Your task to perform on an android device: Search for a small bookcase on Ikea.com Image 0: 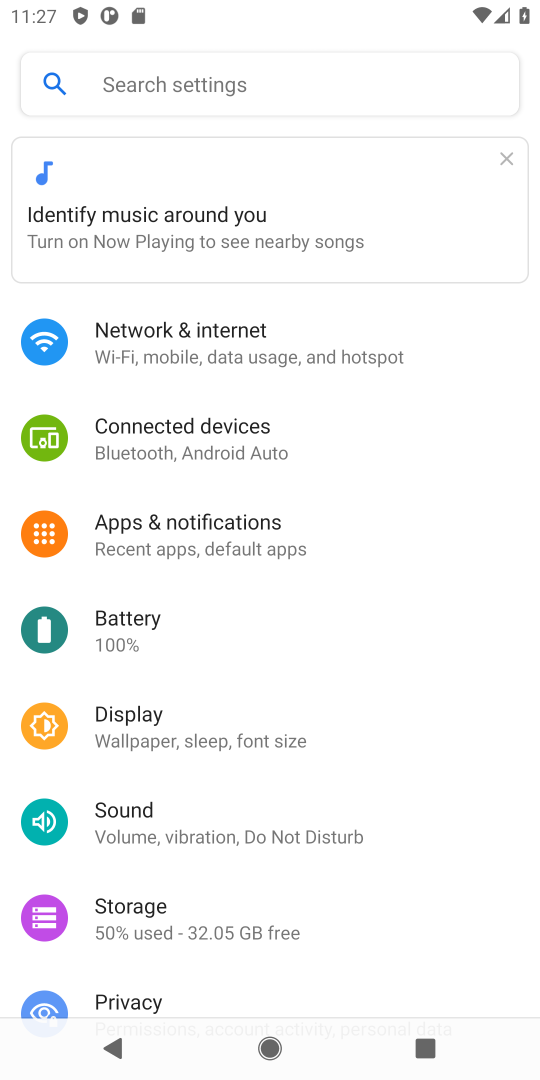
Step 0: press home button
Your task to perform on an android device: Search for a small bookcase on Ikea.com Image 1: 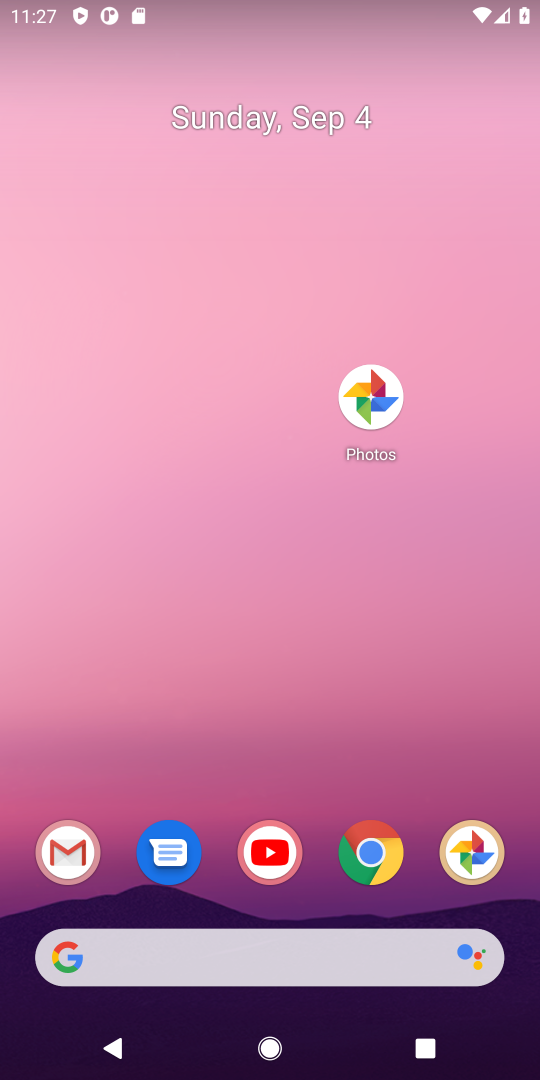
Step 1: drag from (442, 887) to (196, 32)
Your task to perform on an android device: Search for a small bookcase on Ikea.com Image 2: 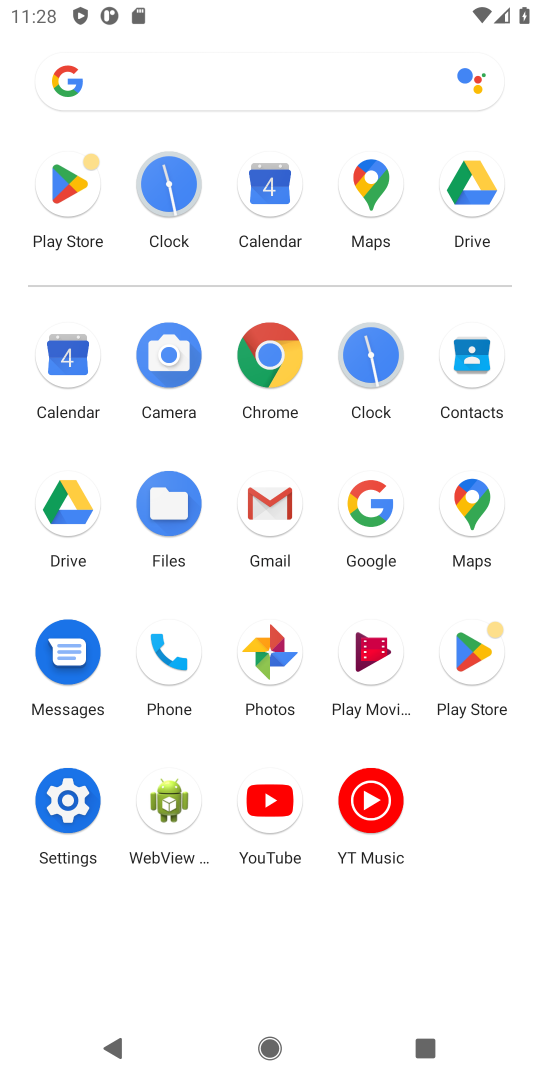
Step 2: click (366, 490)
Your task to perform on an android device: Search for a small bookcase on Ikea.com Image 3: 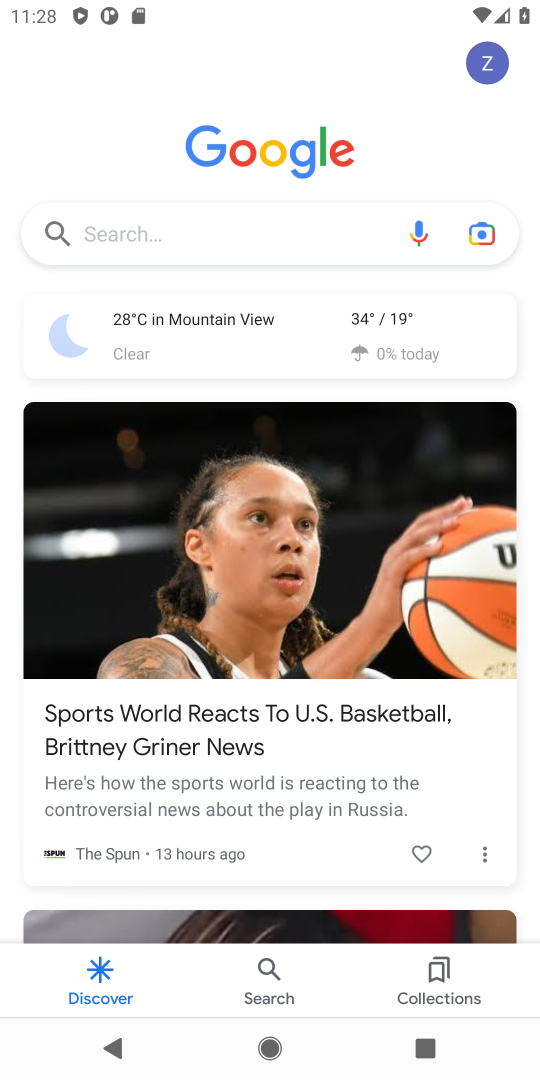
Step 3: click (137, 243)
Your task to perform on an android device: Search for a small bookcase on Ikea.com Image 4: 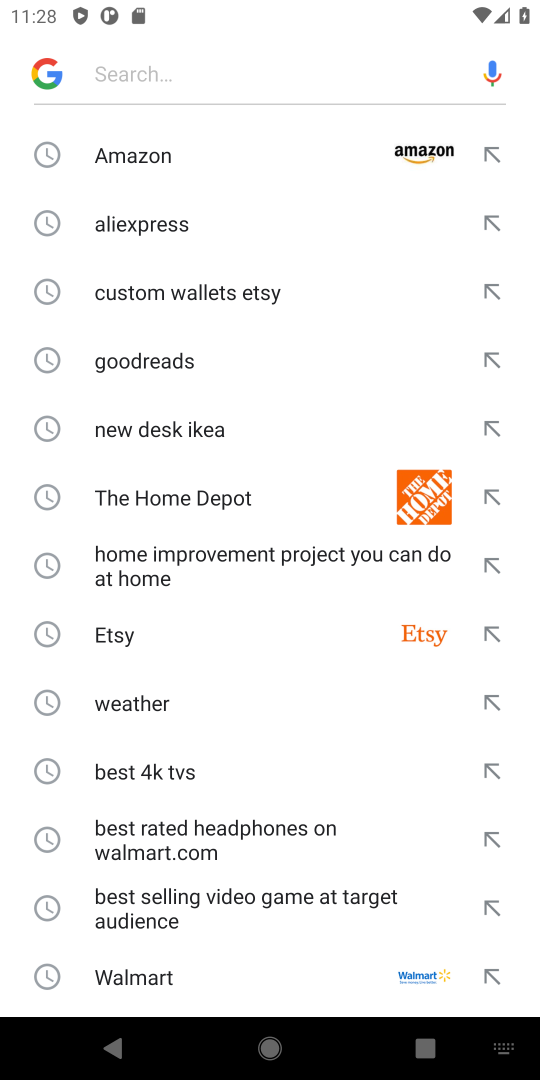
Step 4: type "small bookcase on Ikea.com"
Your task to perform on an android device: Search for a small bookcase on Ikea.com Image 5: 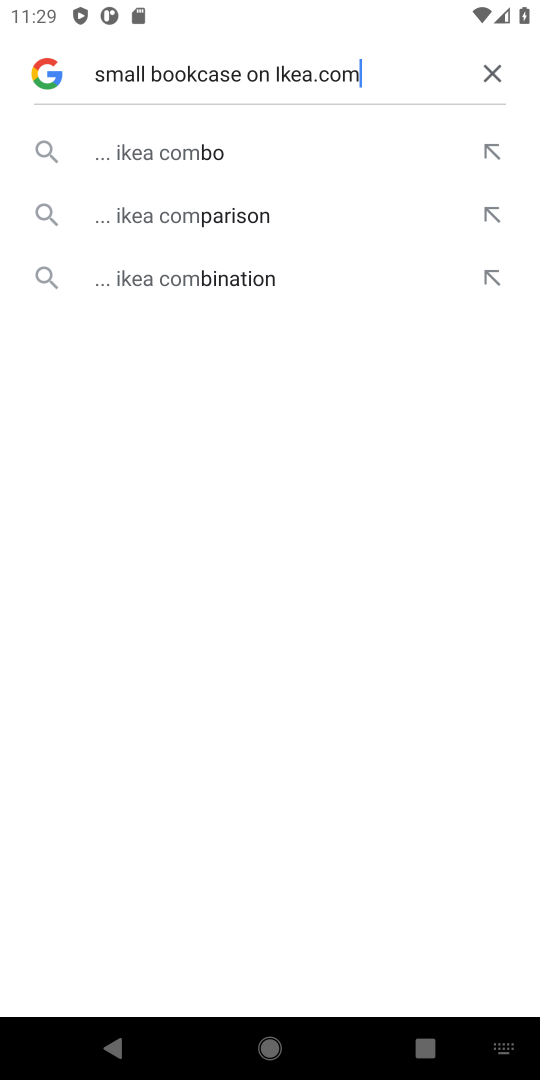
Step 5: task complete